Your task to perform on an android device: Show me popular games on the Play Store Image 0: 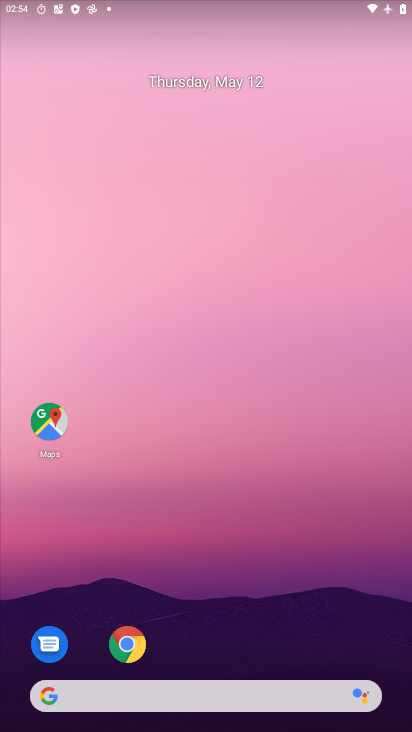
Step 0: drag from (222, 507) to (212, 88)
Your task to perform on an android device: Show me popular games on the Play Store Image 1: 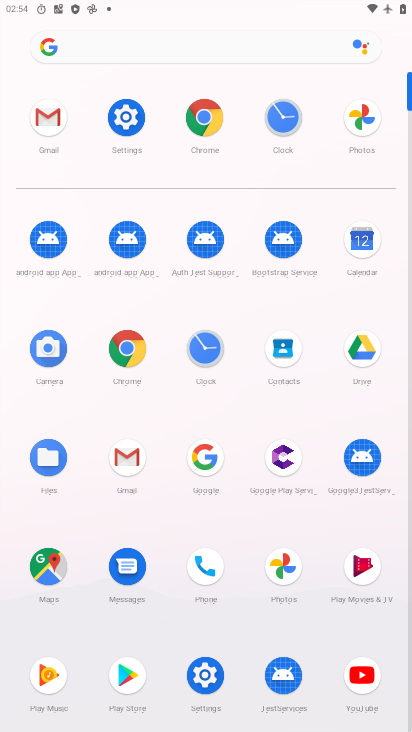
Step 1: click (126, 671)
Your task to perform on an android device: Show me popular games on the Play Store Image 2: 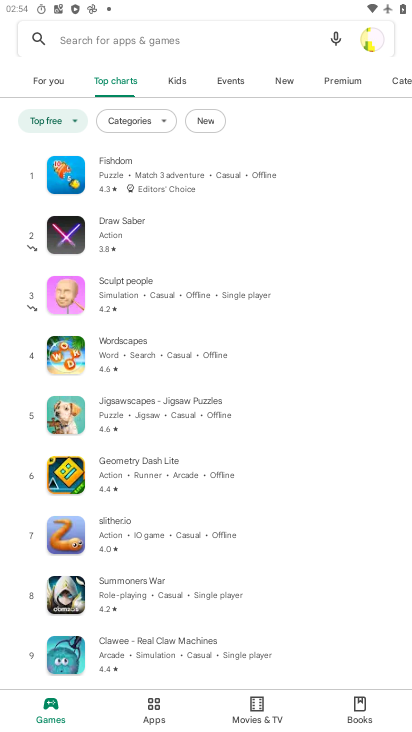
Step 2: task complete